Your task to perform on an android device: open device folders in google photos Image 0: 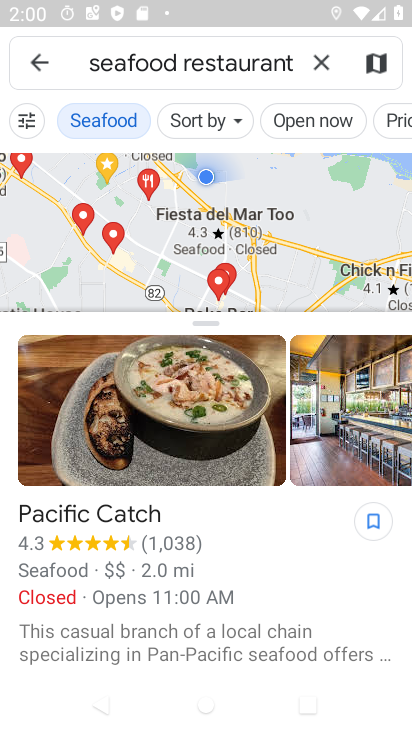
Step 0: press home button
Your task to perform on an android device: open device folders in google photos Image 1: 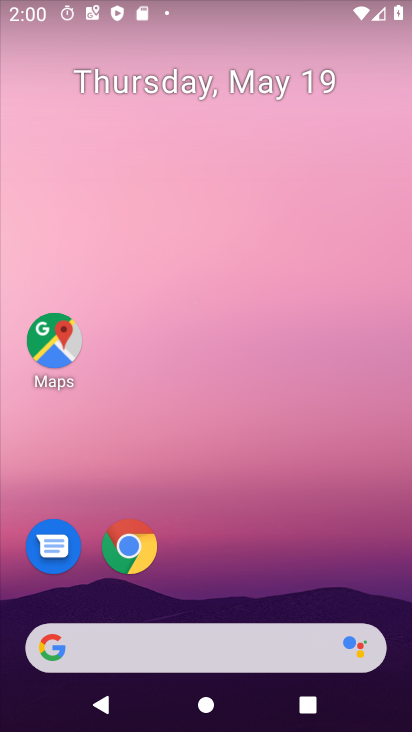
Step 1: drag from (186, 601) to (270, 1)
Your task to perform on an android device: open device folders in google photos Image 2: 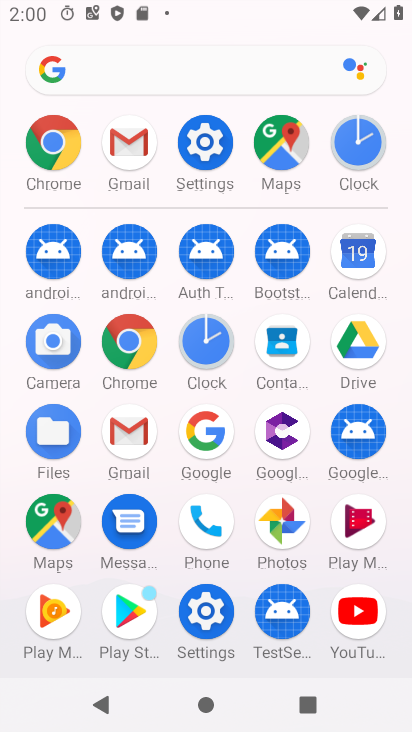
Step 2: click (288, 525)
Your task to perform on an android device: open device folders in google photos Image 3: 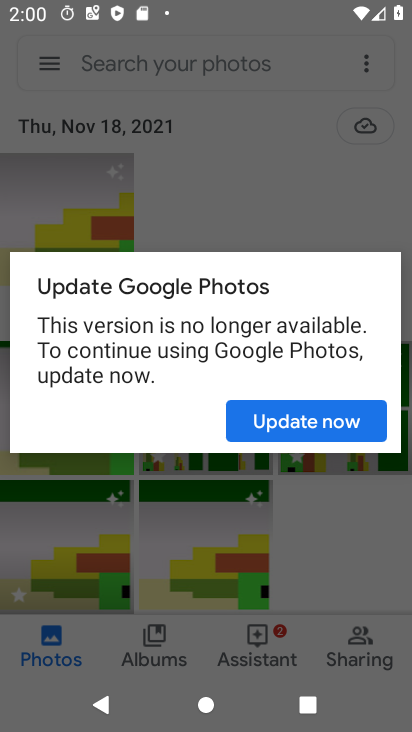
Step 3: click (314, 410)
Your task to perform on an android device: open device folders in google photos Image 4: 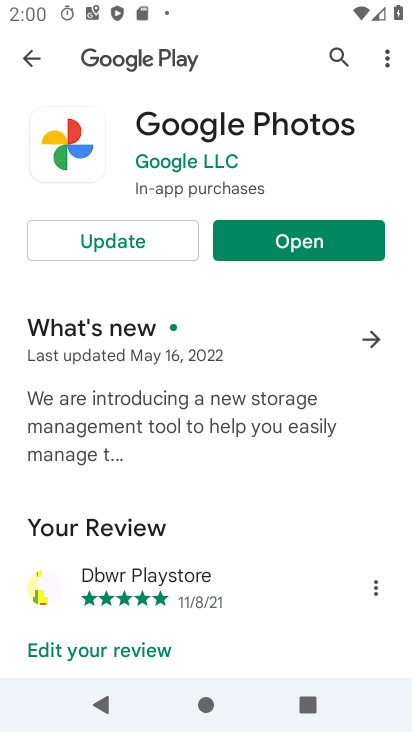
Step 4: click (302, 251)
Your task to perform on an android device: open device folders in google photos Image 5: 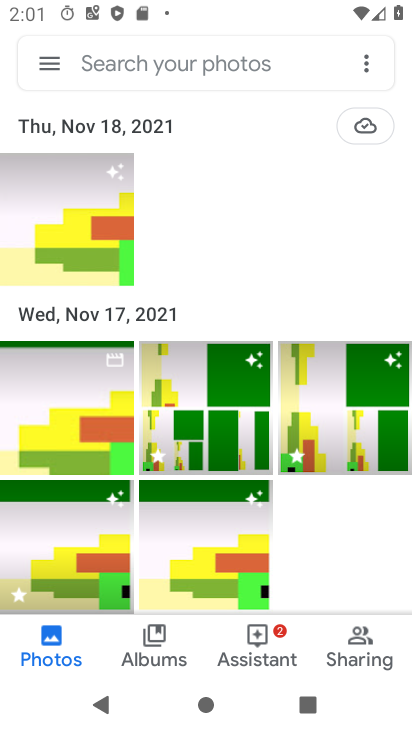
Step 5: click (59, 73)
Your task to perform on an android device: open device folders in google photos Image 6: 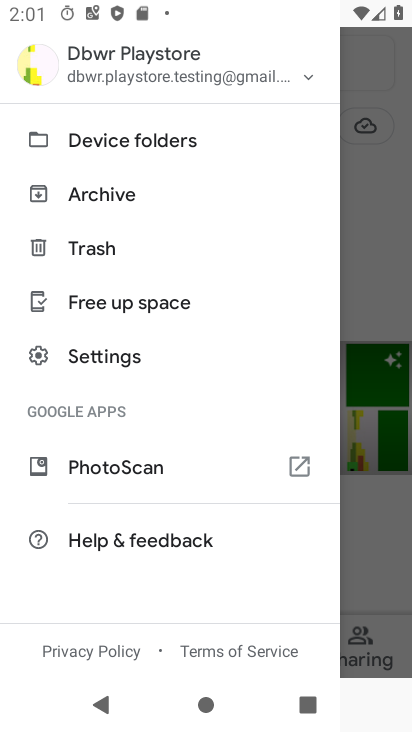
Step 6: click (107, 144)
Your task to perform on an android device: open device folders in google photos Image 7: 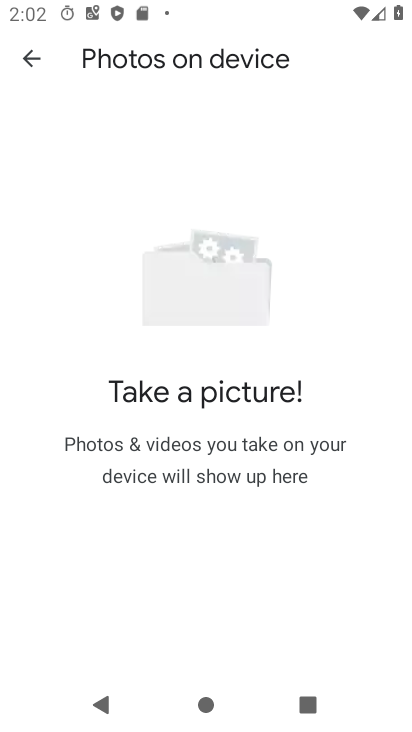
Step 7: click (107, 144)
Your task to perform on an android device: open device folders in google photos Image 8: 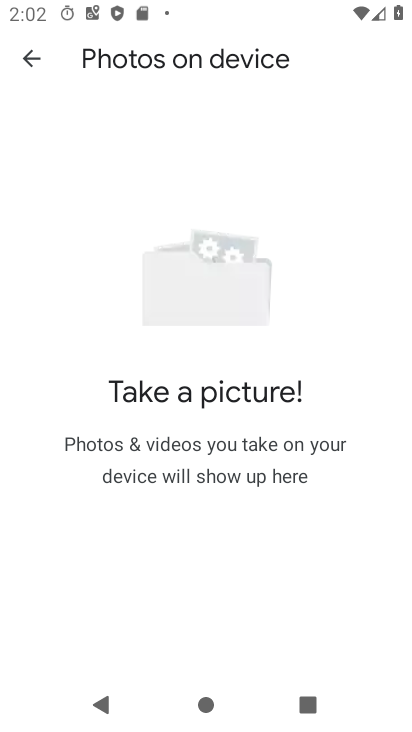
Step 8: task complete